Your task to perform on an android device: Open Youtube and go to the subscriptions tab Image 0: 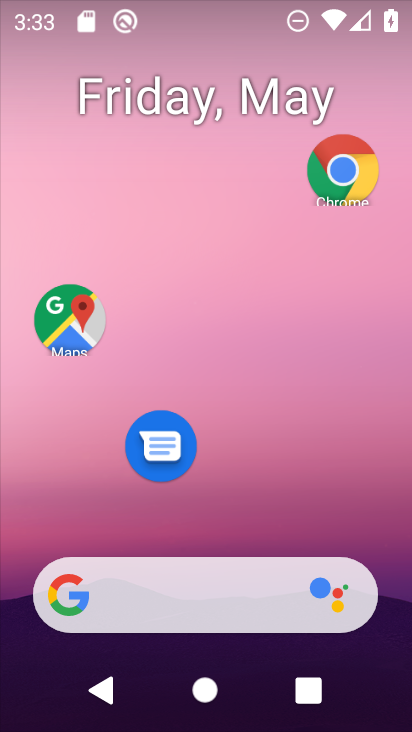
Step 0: drag from (317, 489) to (322, 76)
Your task to perform on an android device: Open Youtube and go to the subscriptions tab Image 1: 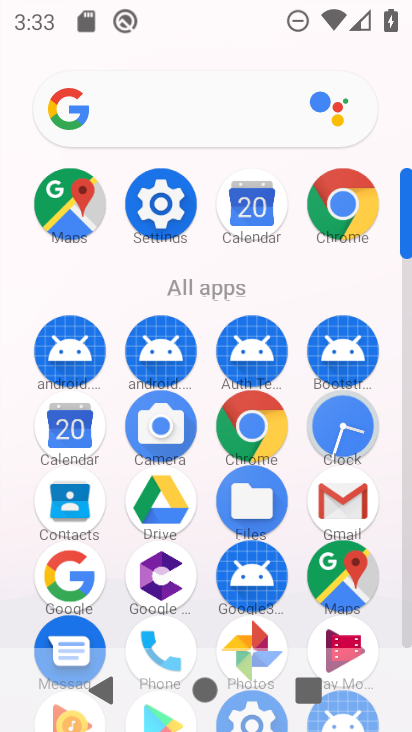
Step 1: drag from (296, 305) to (320, 119)
Your task to perform on an android device: Open Youtube and go to the subscriptions tab Image 2: 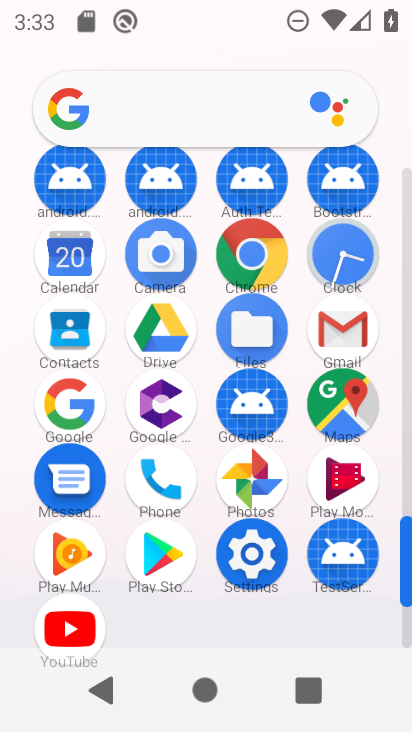
Step 2: click (58, 636)
Your task to perform on an android device: Open Youtube and go to the subscriptions tab Image 3: 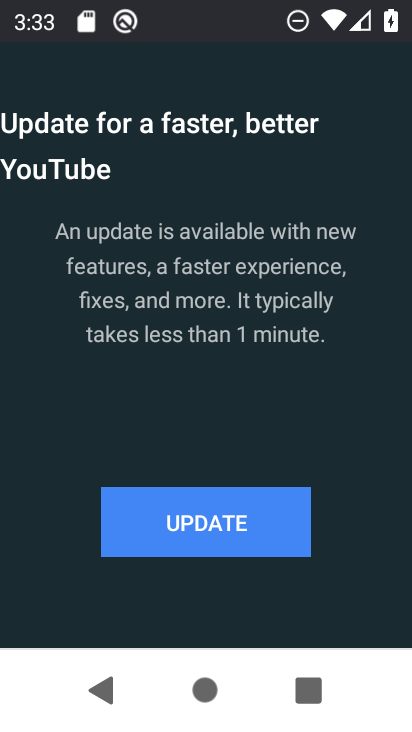
Step 3: click (184, 517)
Your task to perform on an android device: Open Youtube and go to the subscriptions tab Image 4: 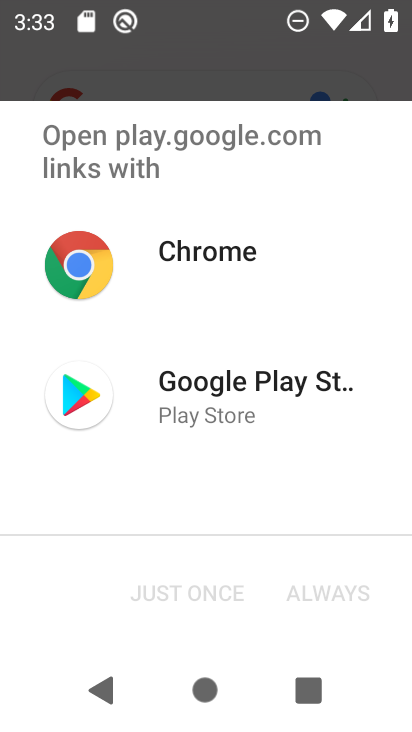
Step 4: click (194, 377)
Your task to perform on an android device: Open Youtube and go to the subscriptions tab Image 5: 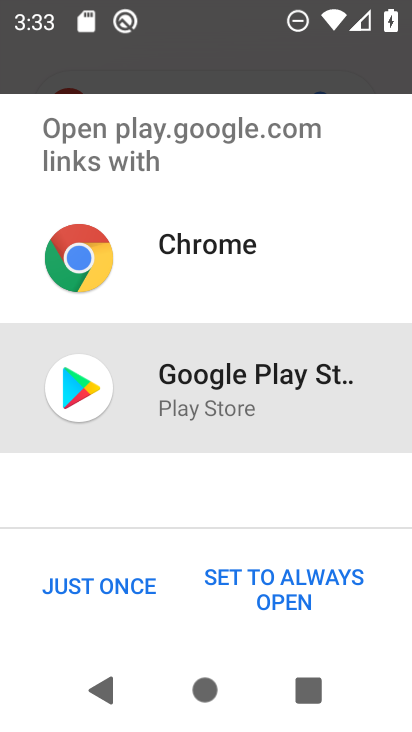
Step 5: click (120, 587)
Your task to perform on an android device: Open Youtube and go to the subscriptions tab Image 6: 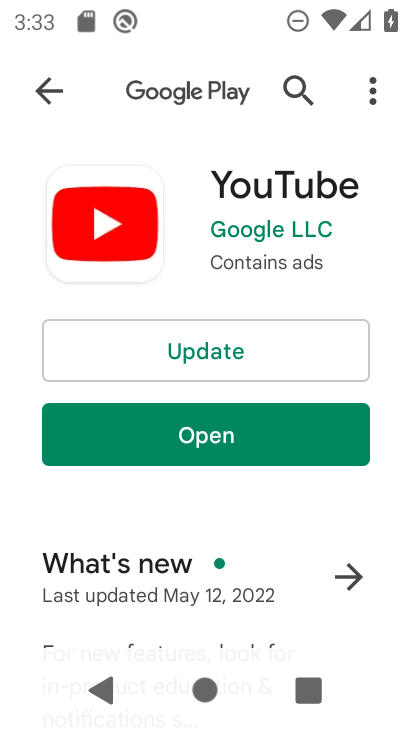
Step 6: click (175, 352)
Your task to perform on an android device: Open Youtube and go to the subscriptions tab Image 7: 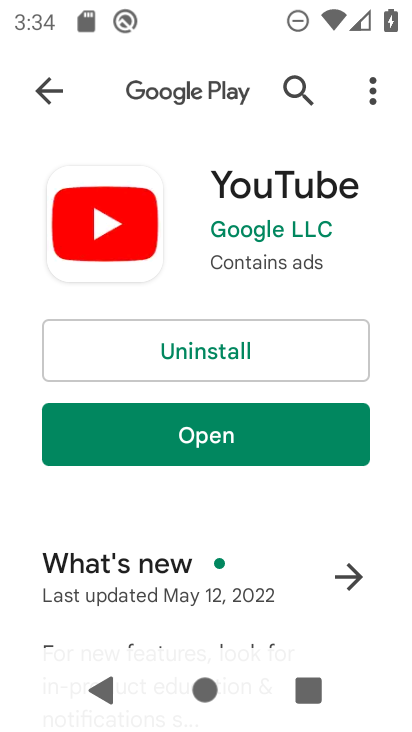
Step 7: click (281, 449)
Your task to perform on an android device: Open Youtube and go to the subscriptions tab Image 8: 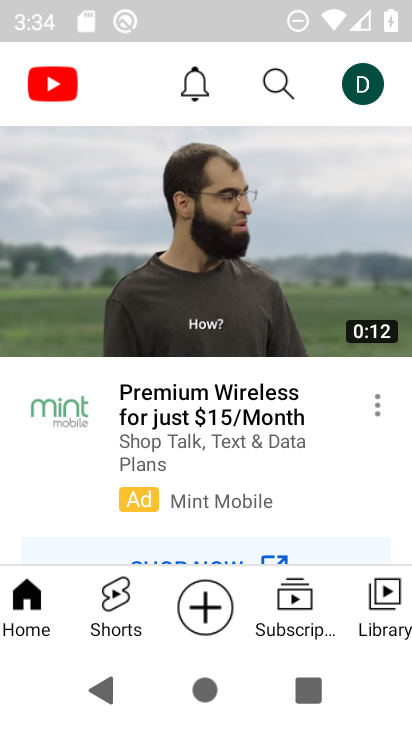
Step 8: click (289, 617)
Your task to perform on an android device: Open Youtube and go to the subscriptions tab Image 9: 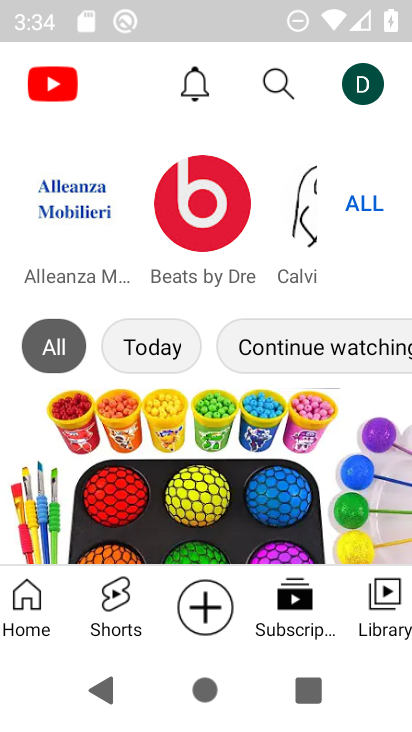
Step 9: task complete